Your task to perform on an android device: set default search engine in the chrome app Image 0: 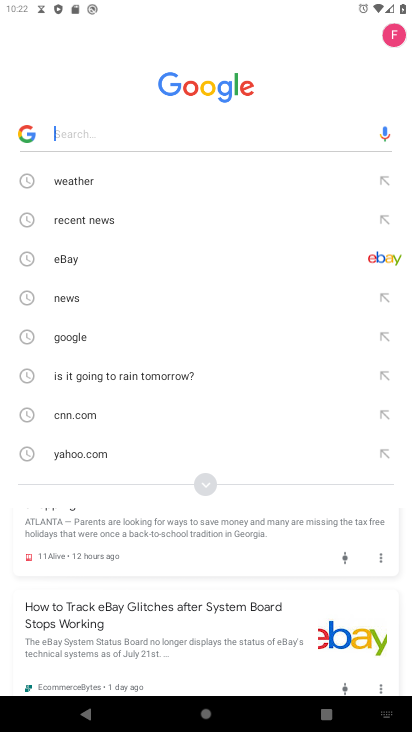
Step 0: press home button
Your task to perform on an android device: set default search engine in the chrome app Image 1: 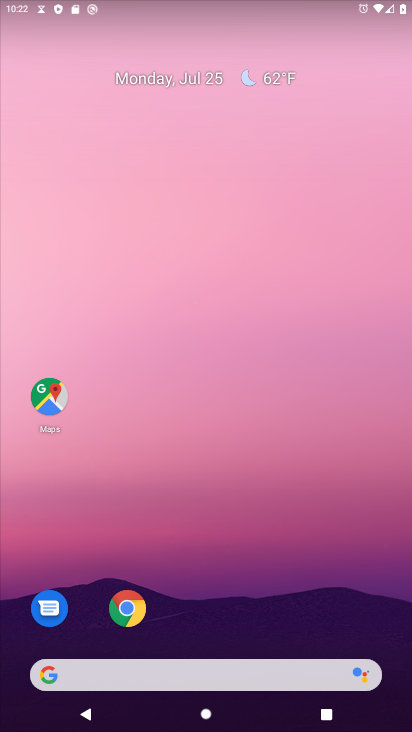
Step 1: click (127, 609)
Your task to perform on an android device: set default search engine in the chrome app Image 2: 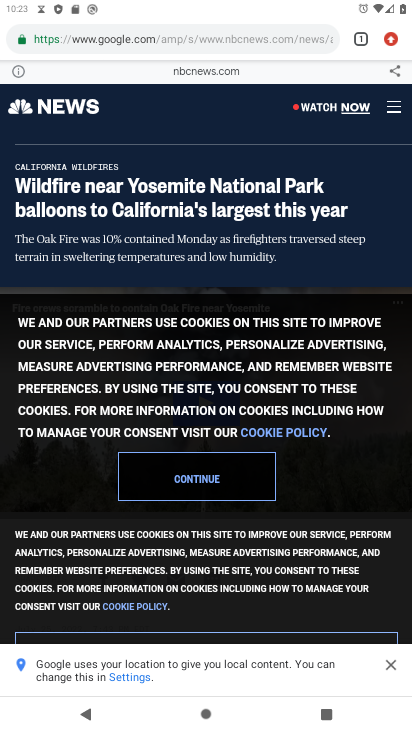
Step 2: click (390, 38)
Your task to perform on an android device: set default search engine in the chrome app Image 3: 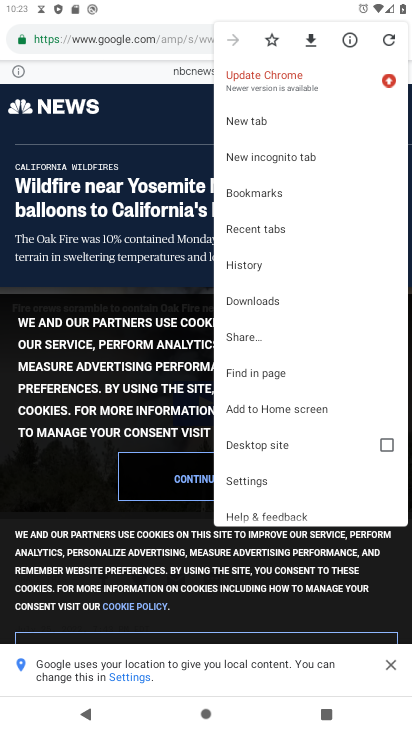
Step 3: click (253, 481)
Your task to perform on an android device: set default search engine in the chrome app Image 4: 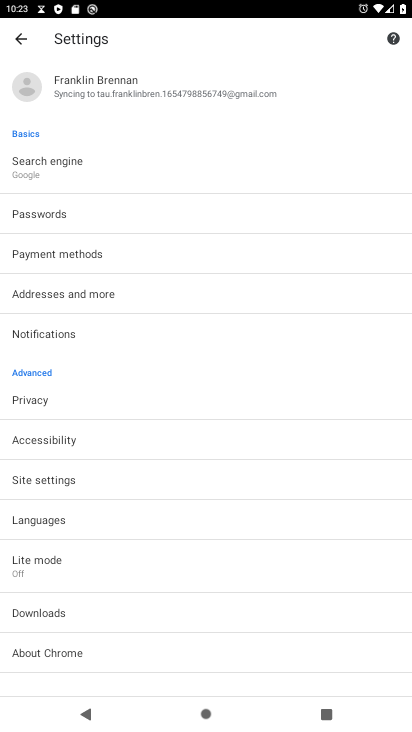
Step 4: click (45, 169)
Your task to perform on an android device: set default search engine in the chrome app Image 5: 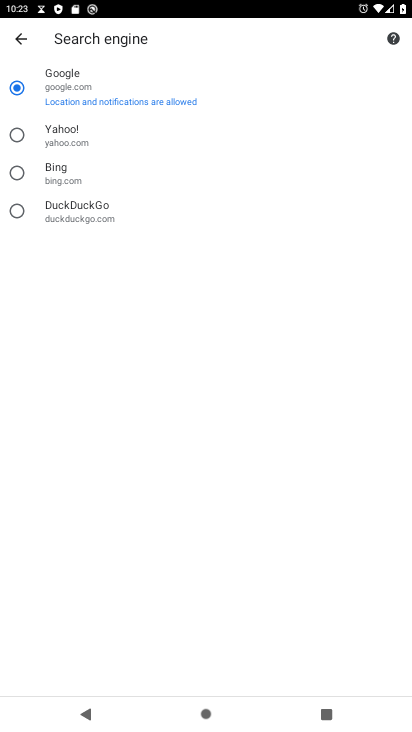
Step 5: click (14, 84)
Your task to perform on an android device: set default search engine in the chrome app Image 6: 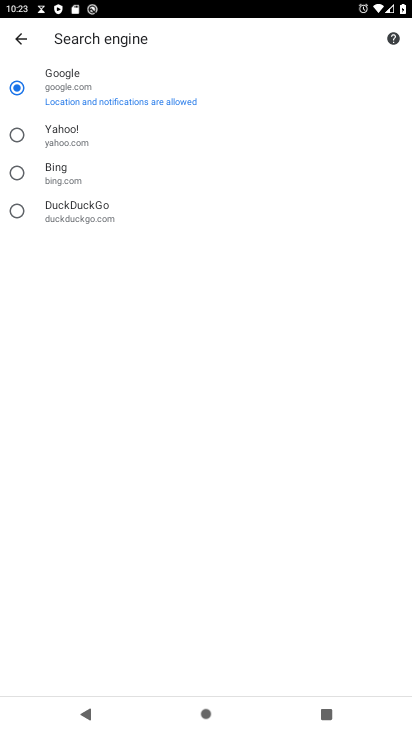
Step 6: task complete